Your task to perform on an android device: Do I have any events this weekend? Image 0: 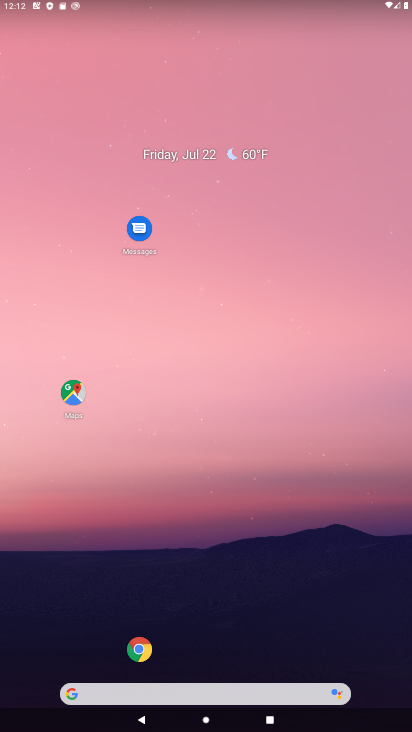
Step 0: drag from (48, 669) to (170, 197)
Your task to perform on an android device: Do I have any events this weekend? Image 1: 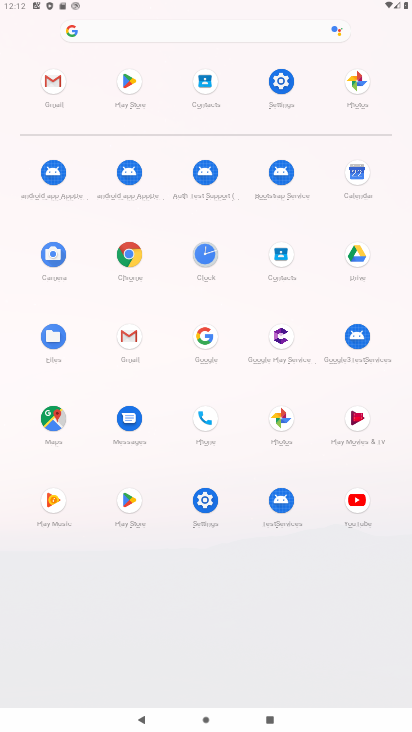
Step 1: click (357, 165)
Your task to perform on an android device: Do I have any events this weekend? Image 2: 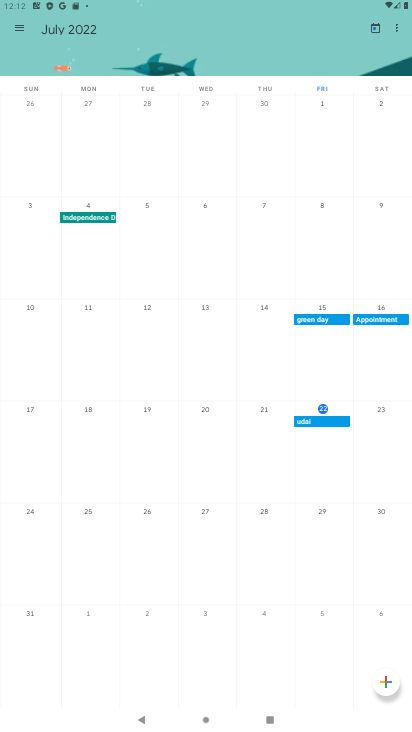
Step 2: task complete